Your task to perform on an android device: Show the shopping cart on walmart.com. Search for bose soundlink on walmart.com, select the first entry, and add it to the cart. Image 0: 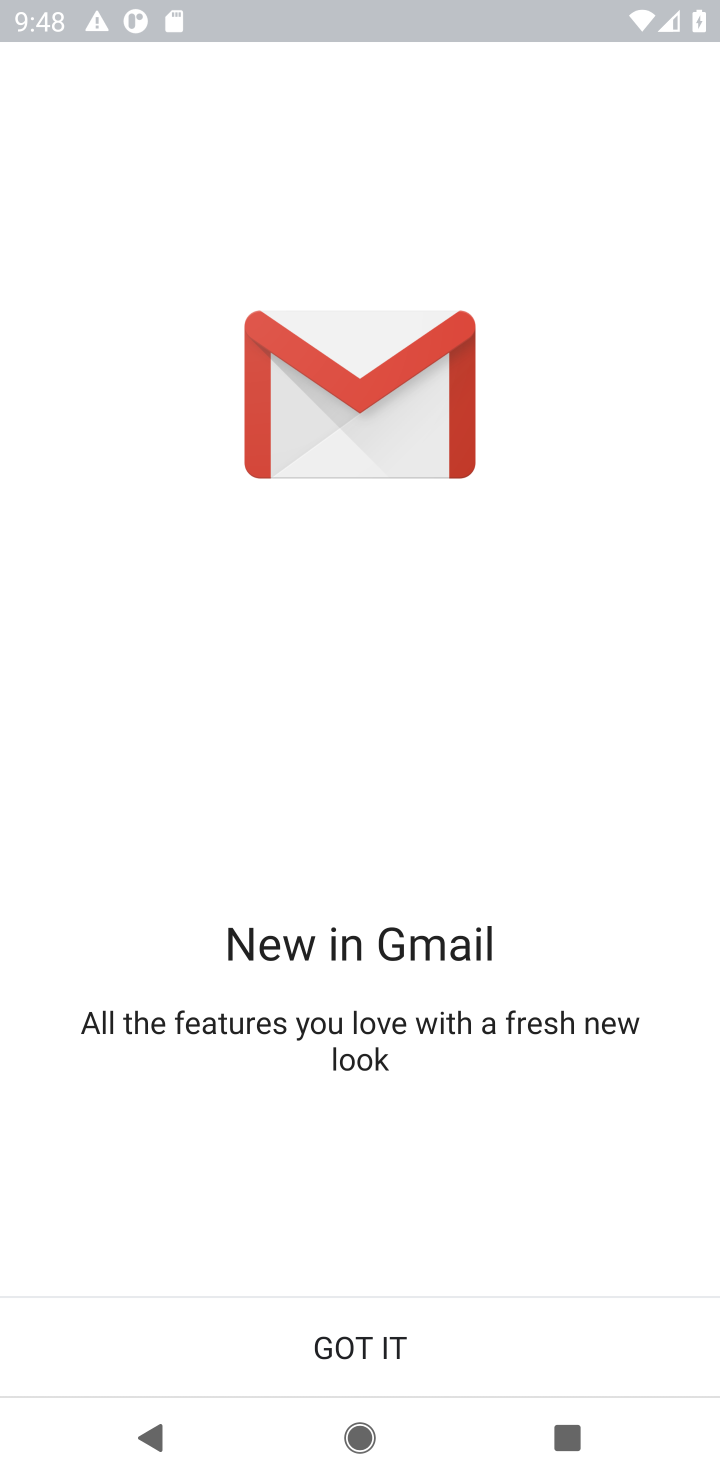
Step 0: press home button
Your task to perform on an android device: Show the shopping cart on walmart.com. Search for bose soundlink on walmart.com, select the first entry, and add it to the cart. Image 1: 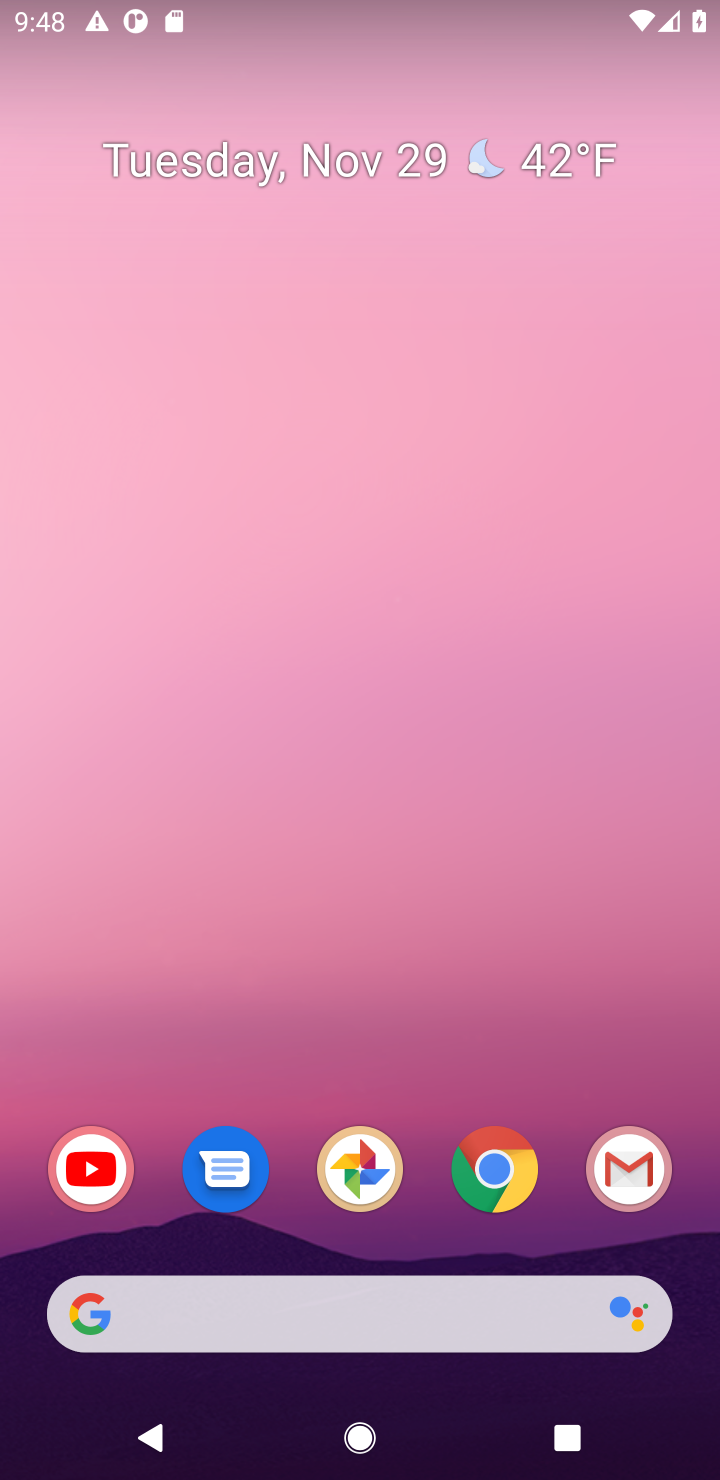
Step 1: click (350, 1320)
Your task to perform on an android device: Show the shopping cart on walmart.com. Search for bose soundlink on walmart.com, select the first entry, and add it to the cart. Image 2: 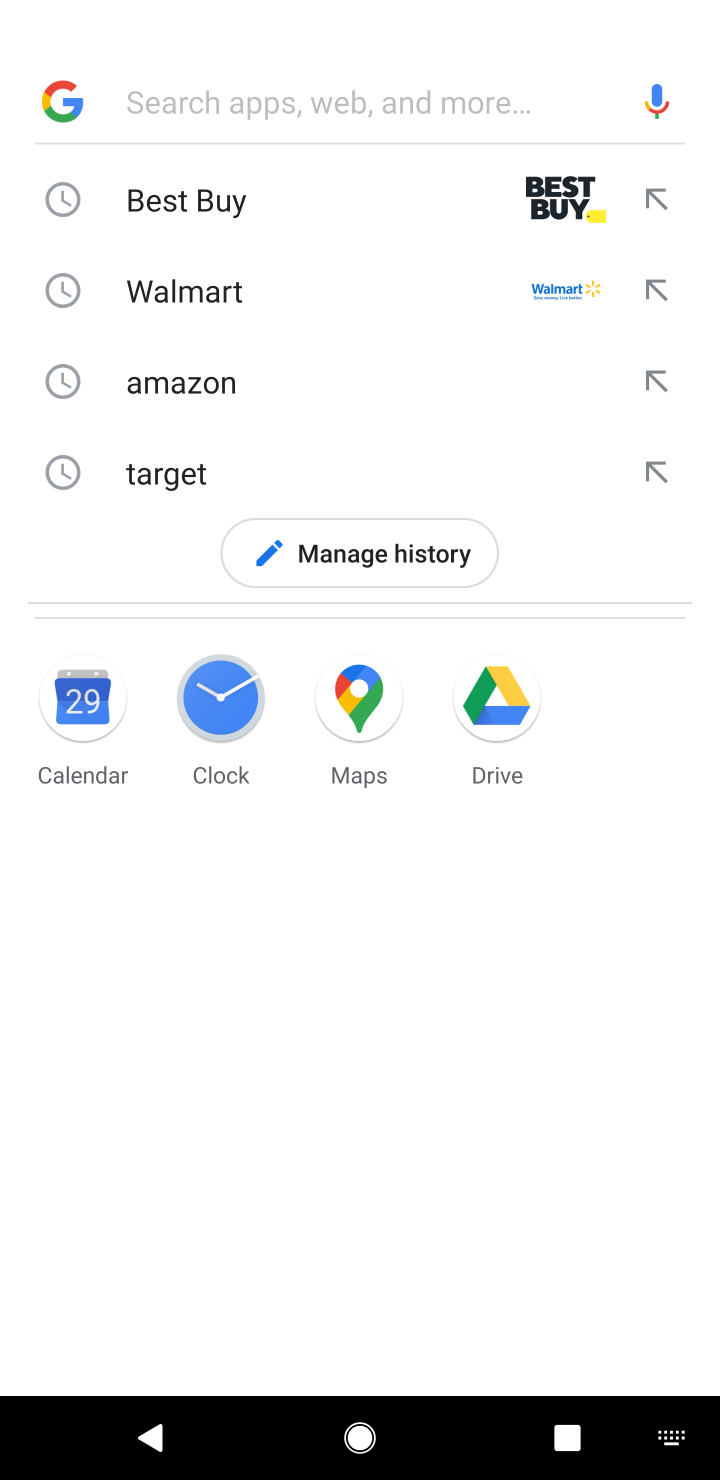
Step 2: click (226, 274)
Your task to perform on an android device: Show the shopping cart on walmart.com. Search for bose soundlink on walmart.com, select the first entry, and add it to the cart. Image 3: 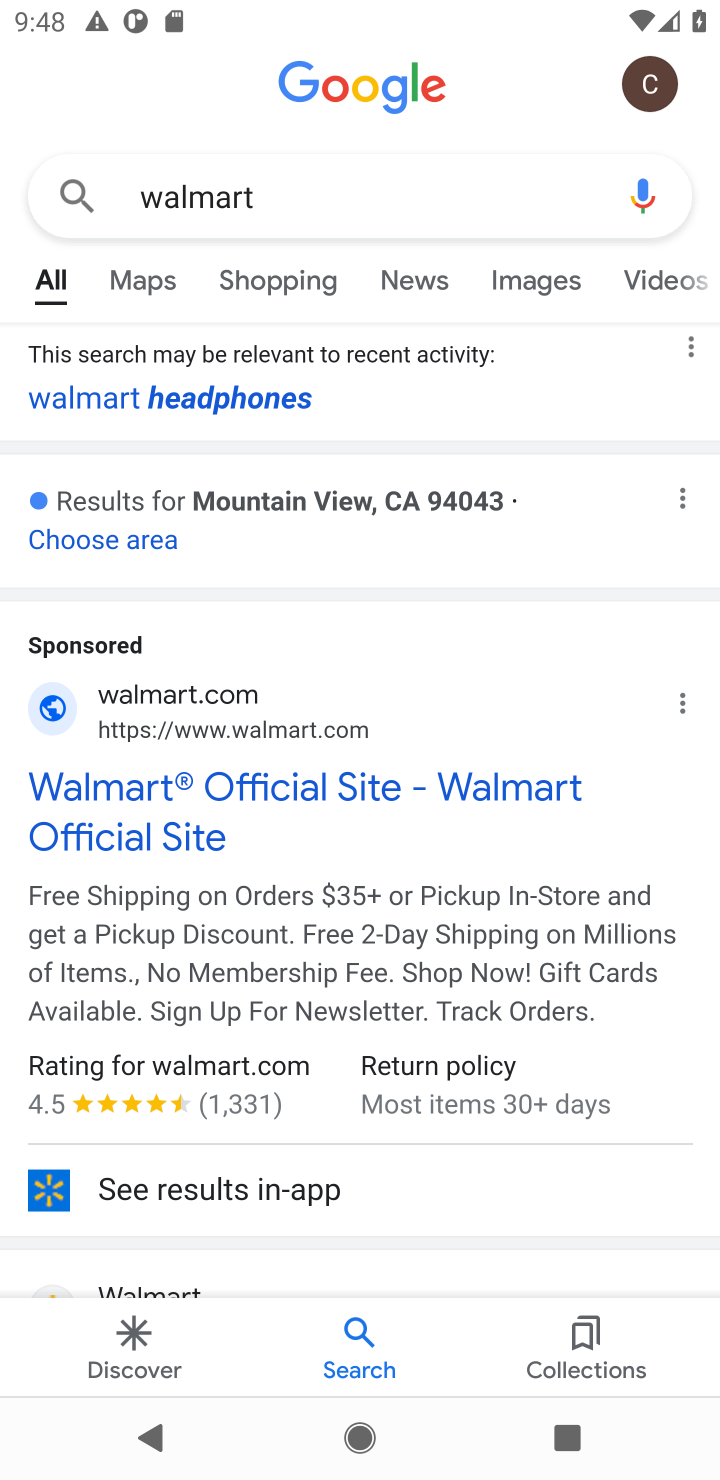
Step 3: click (225, 796)
Your task to perform on an android device: Show the shopping cart on walmart.com. Search for bose soundlink on walmart.com, select the first entry, and add it to the cart. Image 4: 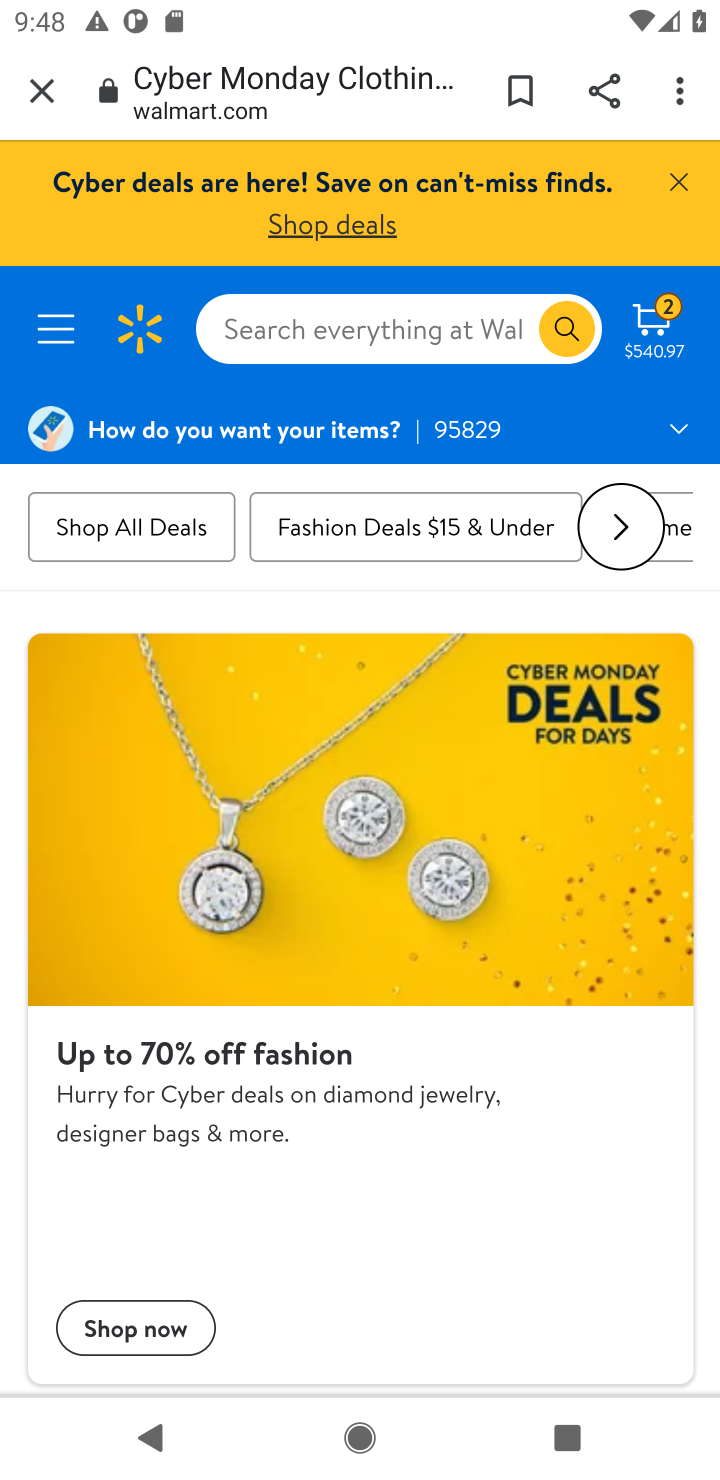
Step 4: click (289, 327)
Your task to perform on an android device: Show the shopping cart on walmart.com. Search for bose soundlink on walmart.com, select the first entry, and add it to the cart. Image 5: 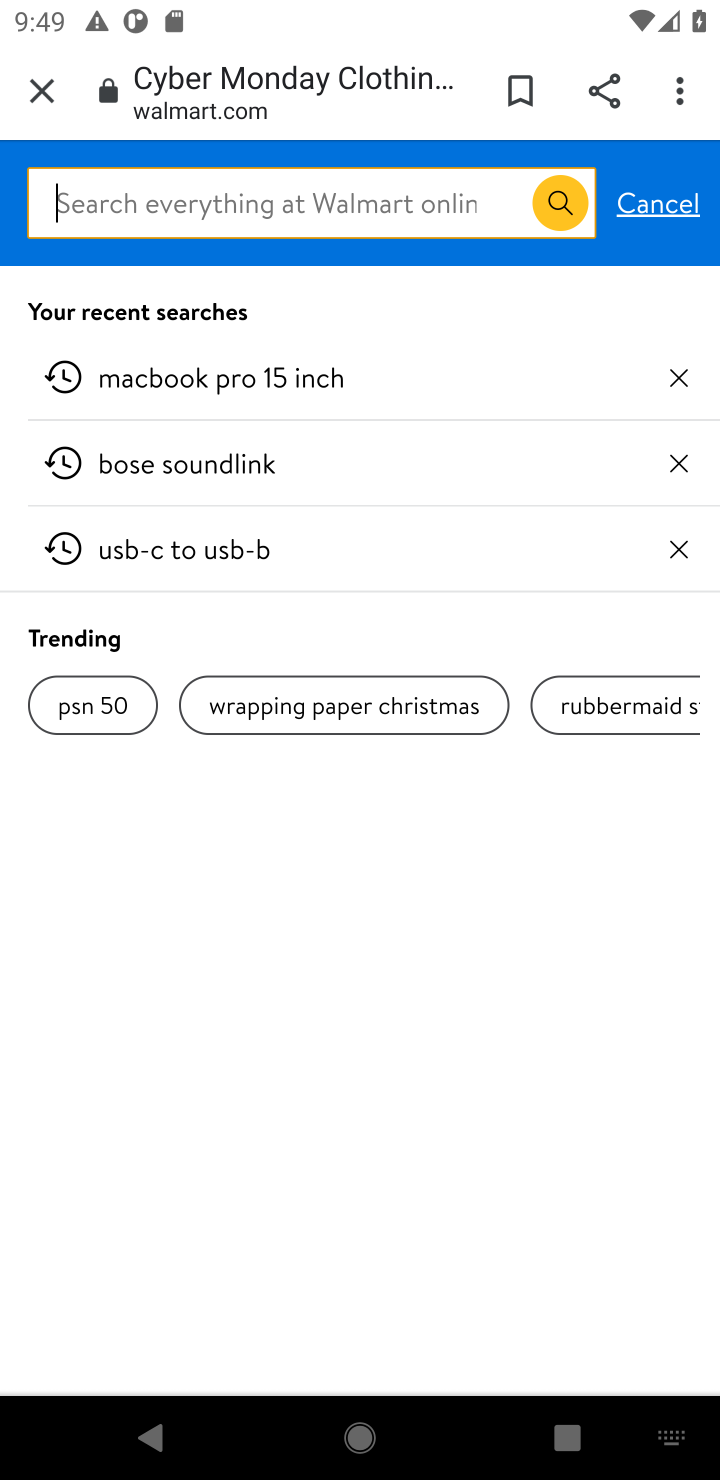
Step 5: type "bose soundlink"
Your task to perform on an android device: Show the shopping cart on walmart.com. Search for bose soundlink on walmart.com, select the first entry, and add it to the cart. Image 6: 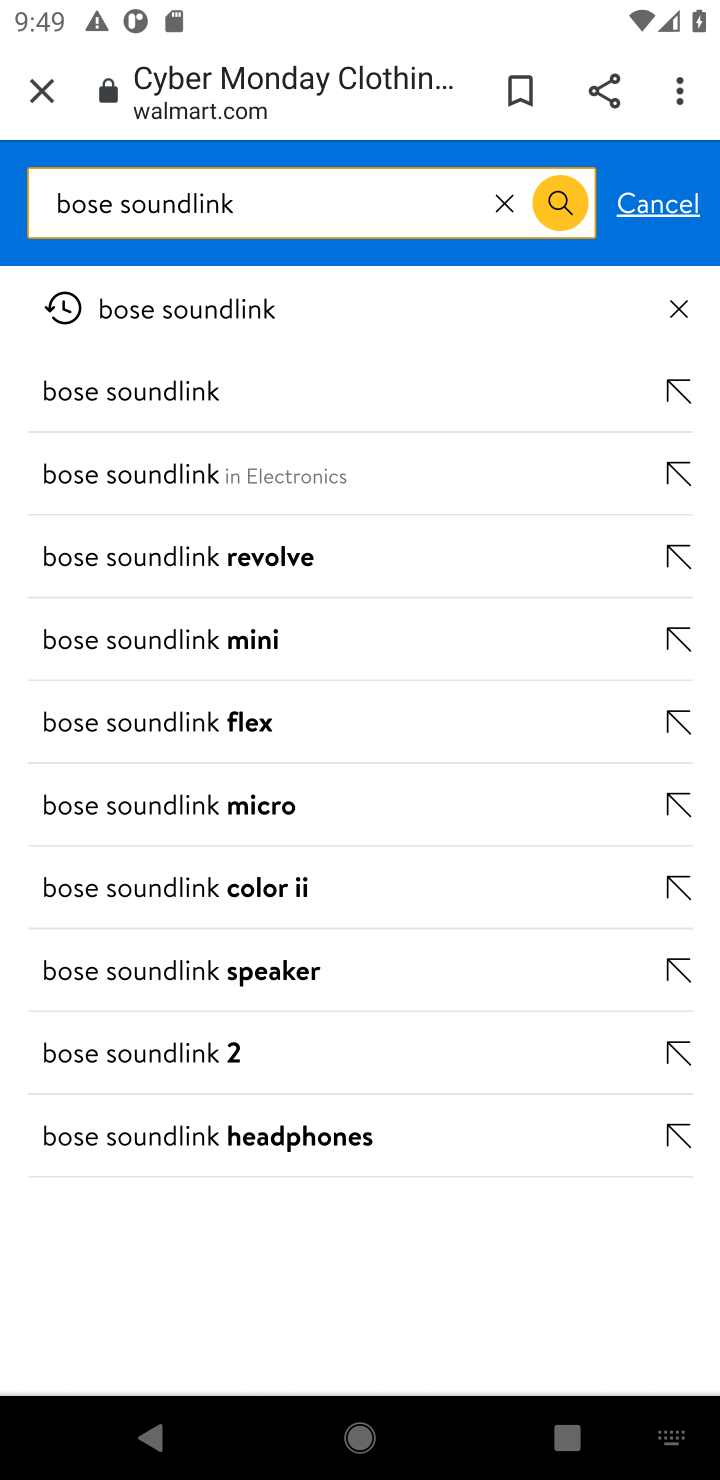
Step 6: click (165, 312)
Your task to perform on an android device: Show the shopping cart on walmart.com. Search for bose soundlink on walmart.com, select the first entry, and add it to the cart. Image 7: 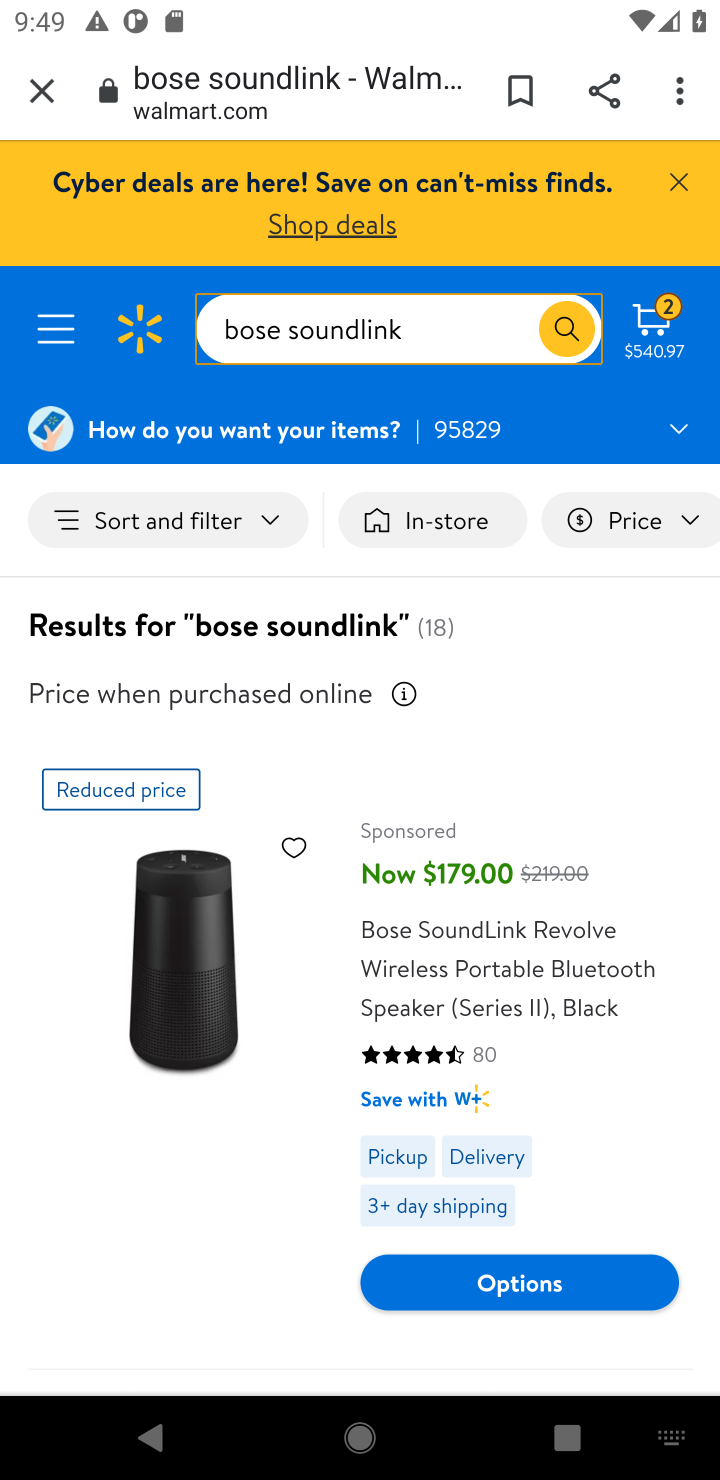
Step 7: click (443, 1279)
Your task to perform on an android device: Show the shopping cart on walmart.com. Search for bose soundlink on walmart.com, select the first entry, and add it to the cart. Image 8: 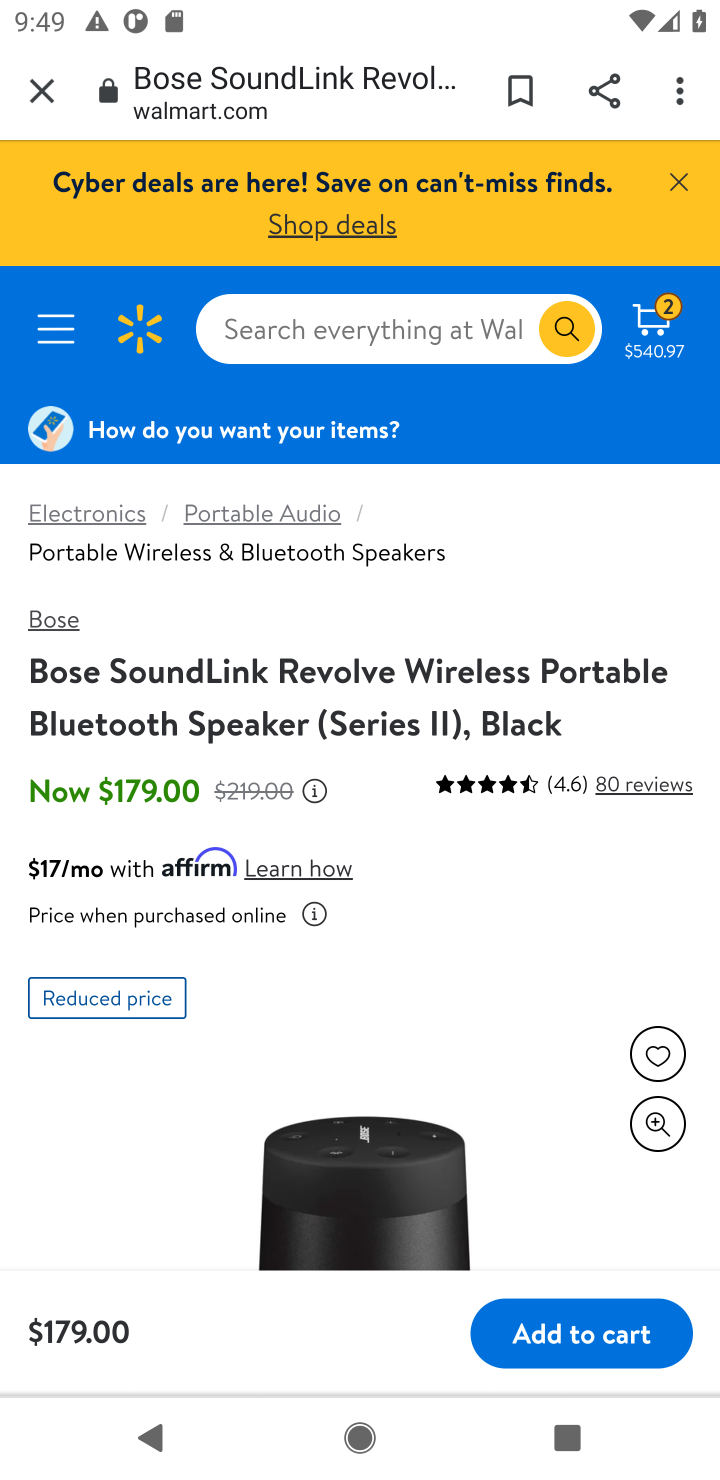
Step 8: click (569, 1356)
Your task to perform on an android device: Show the shopping cart on walmart.com. Search for bose soundlink on walmart.com, select the first entry, and add it to the cart. Image 9: 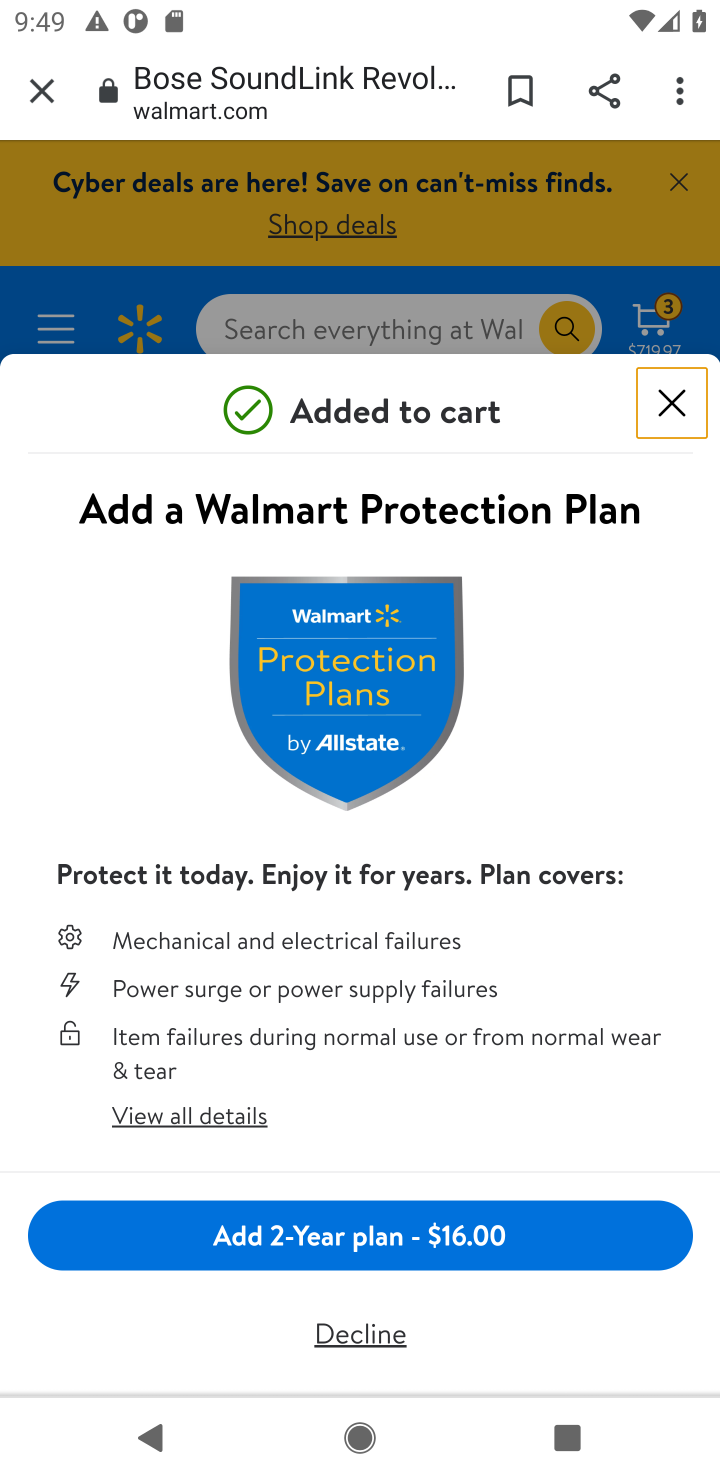
Step 9: task complete